Your task to perform on an android device: open device folders in google photos Image 0: 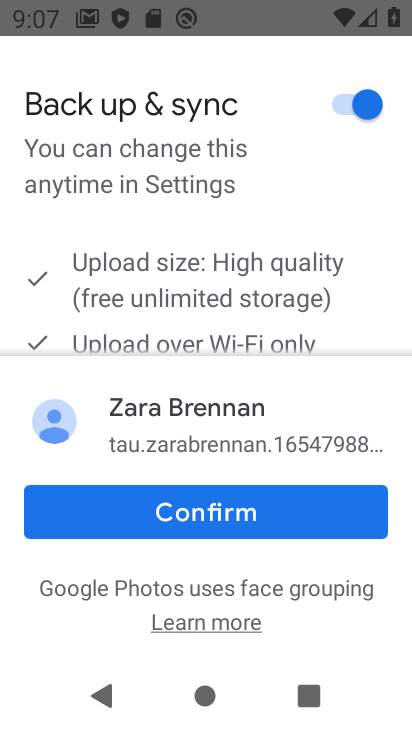
Step 0: press home button
Your task to perform on an android device: open device folders in google photos Image 1: 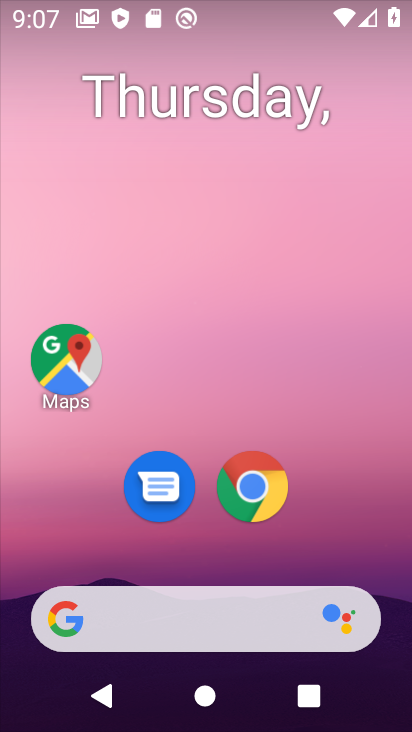
Step 1: click (282, 389)
Your task to perform on an android device: open device folders in google photos Image 2: 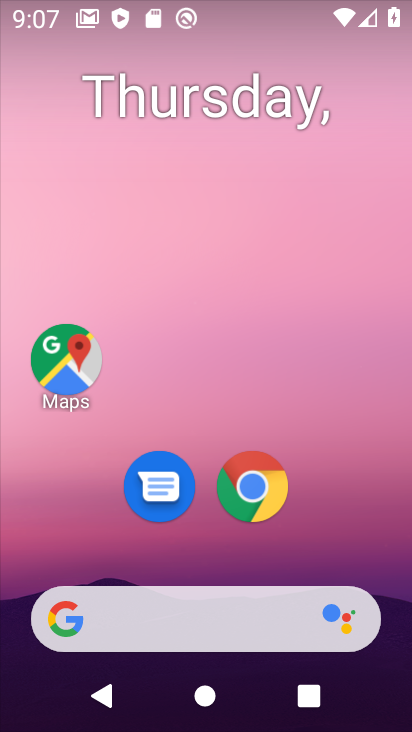
Step 2: drag from (282, 389) to (289, 99)
Your task to perform on an android device: open device folders in google photos Image 3: 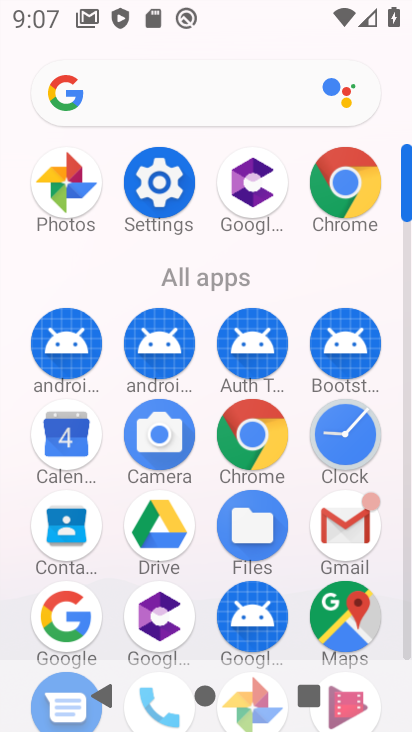
Step 3: click (70, 206)
Your task to perform on an android device: open device folders in google photos Image 4: 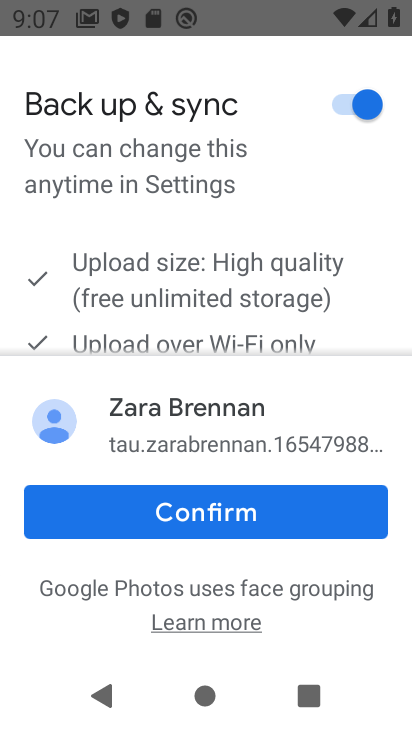
Step 4: task complete